Your task to perform on an android device: Open CNN.com Image 0: 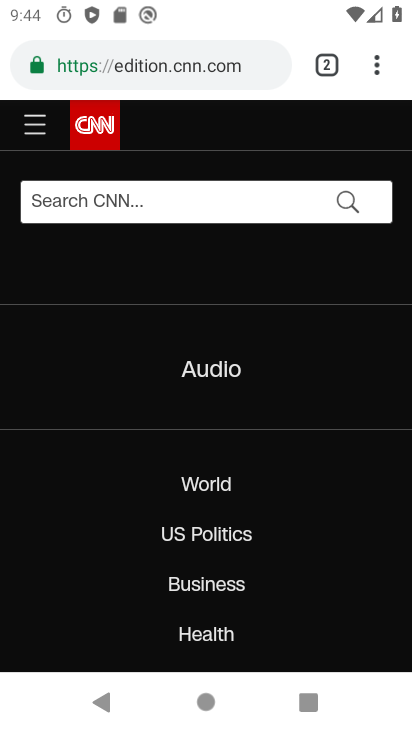
Step 0: task complete